Your task to perform on an android device: turn on the 24-hour format for clock Image 0: 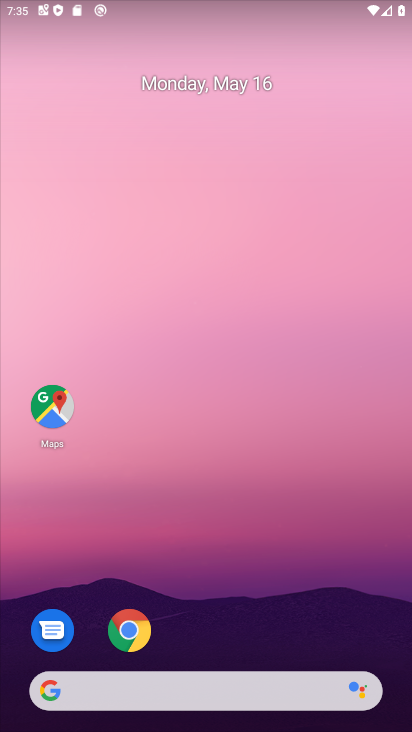
Step 0: drag from (275, 587) to (293, 154)
Your task to perform on an android device: turn on the 24-hour format for clock Image 1: 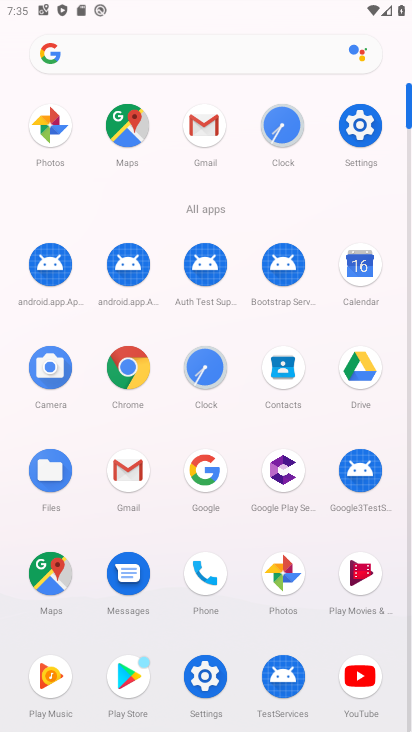
Step 1: click (286, 124)
Your task to perform on an android device: turn on the 24-hour format for clock Image 2: 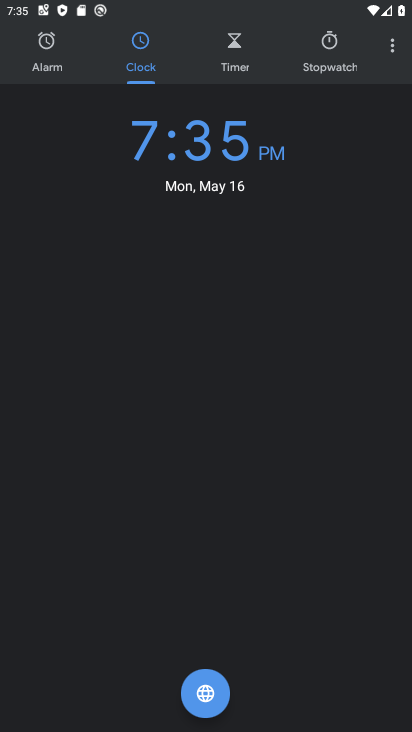
Step 2: click (390, 44)
Your task to perform on an android device: turn on the 24-hour format for clock Image 3: 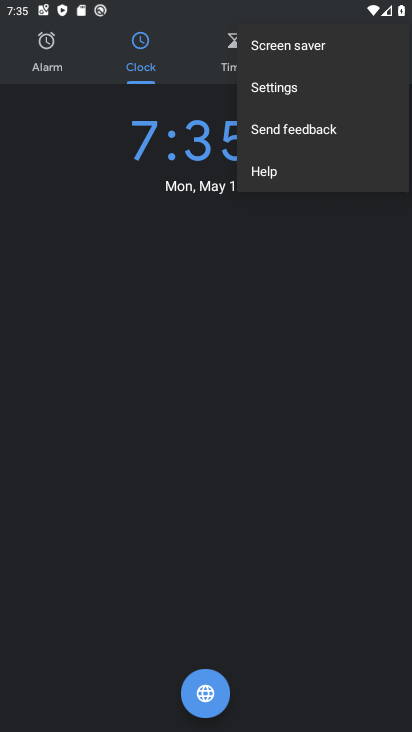
Step 3: click (346, 100)
Your task to perform on an android device: turn on the 24-hour format for clock Image 4: 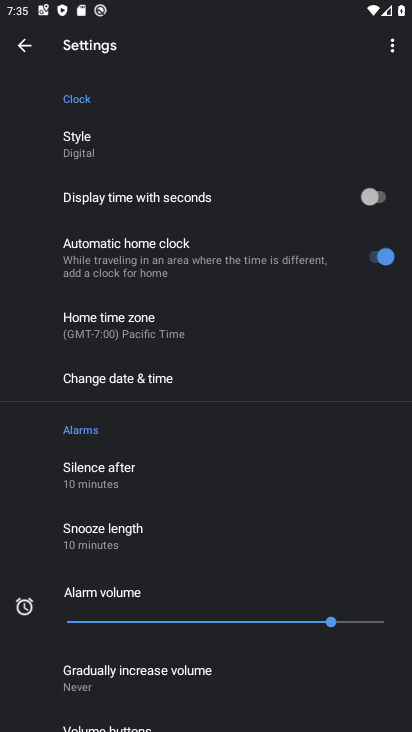
Step 4: drag from (225, 577) to (292, 176)
Your task to perform on an android device: turn on the 24-hour format for clock Image 5: 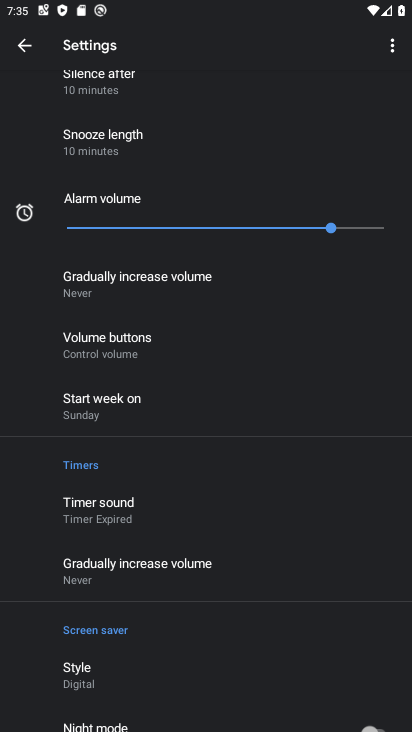
Step 5: drag from (235, 680) to (340, 287)
Your task to perform on an android device: turn on the 24-hour format for clock Image 6: 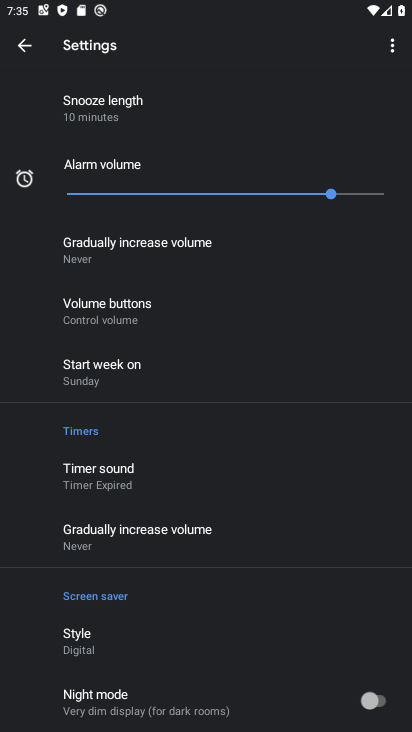
Step 6: drag from (255, 246) to (198, 679)
Your task to perform on an android device: turn on the 24-hour format for clock Image 7: 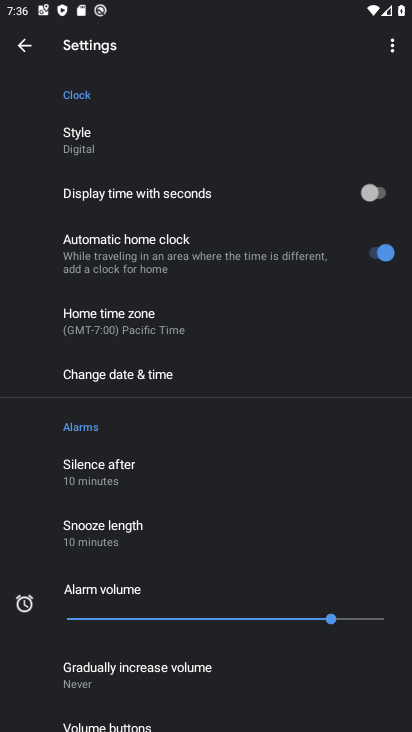
Step 7: drag from (217, 145) to (180, 426)
Your task to perform on an android device: turn on the 24-hour format for clock Image 8: 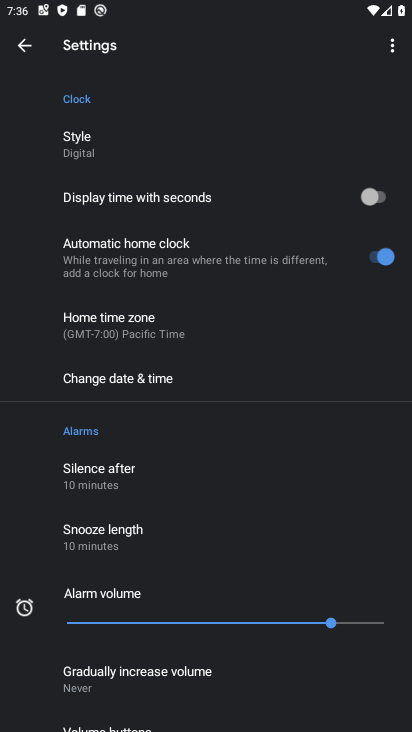
Step 8: click (388, 46)
Your task to perform on an android device: turn on the 24-hour format for clock Image 9: 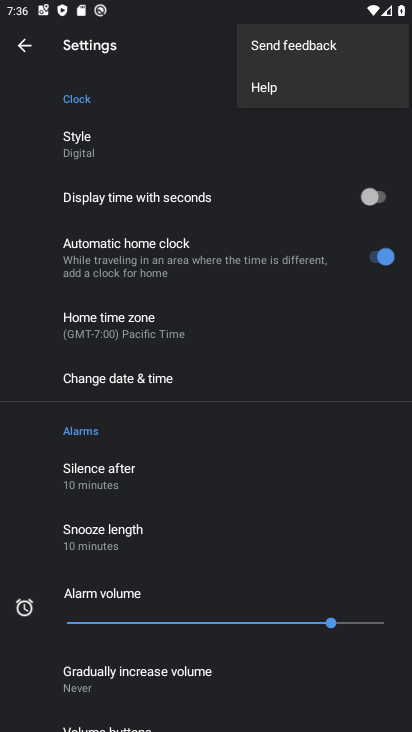
Step 9: press home button
Your task to perform on an android device: turn on the 24-hour format for clock Image 10: 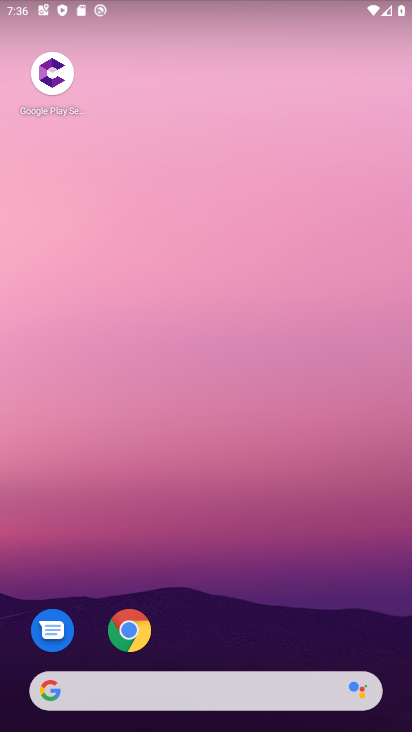
Step 10: drag from (257, 486) to (297, 219)
Your task to perform on an android device: turn on the 24-hour format for clock Image 11: 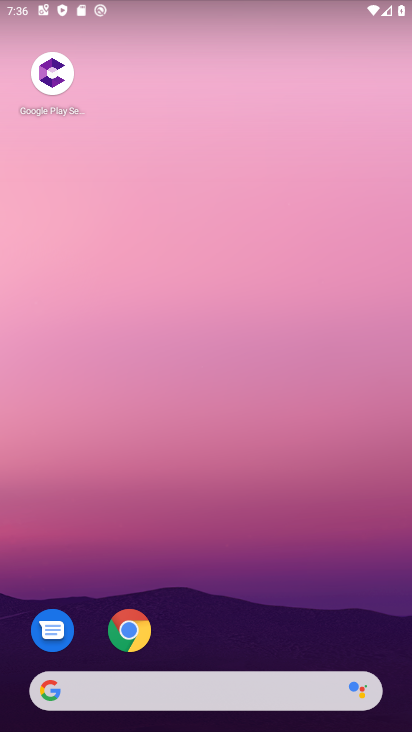
Step 11: drag from (252, 623) to (297, 25)
Your task to perform on an android device: turn on the 24-hour format for clock Image 12: 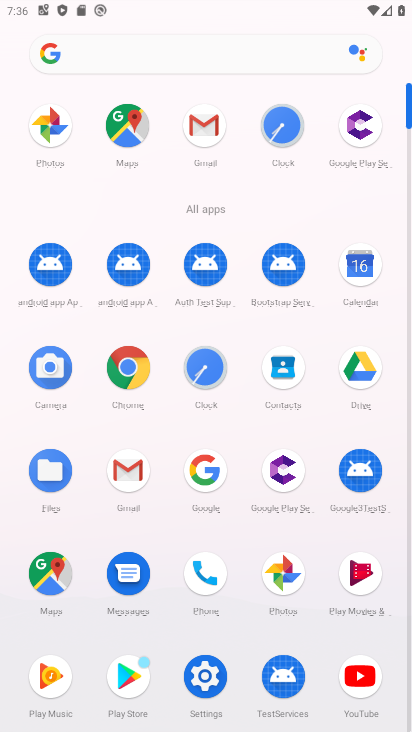
Step 12: click (213, 673)
Your task to perform on an android device: turn on the 24-hour format for clock Image 13: 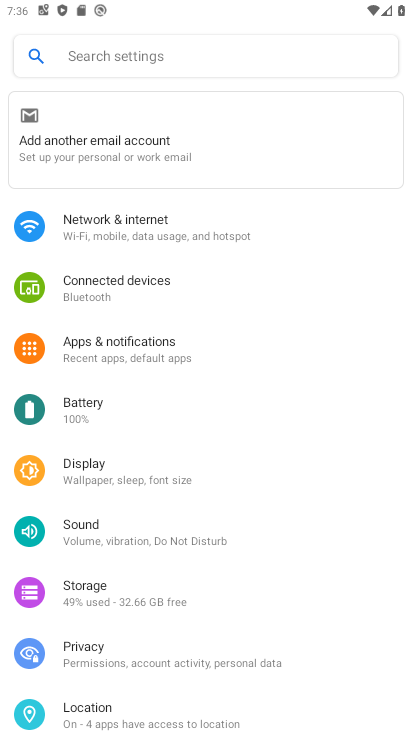
Step 13: drag from (291, 620) to (281, 287)
Your task to perform on an android device: turn on the 24-hour format for clock Image 14: 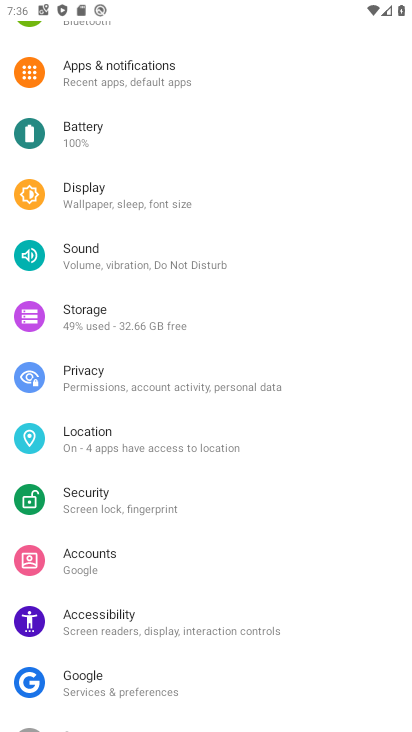
Step 14: drag from (249, 614) to (341, 179)
Your task to perform on an android device: turn on the 24-hour format for clock Image 15: 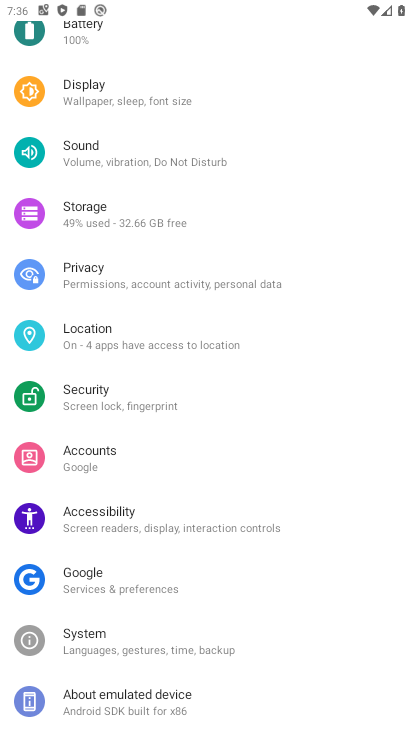
Step 15: drag from (204, 0) to (224, 601)
Your task to perform on an android device: turn on the 24-hour format for clock Image 16: 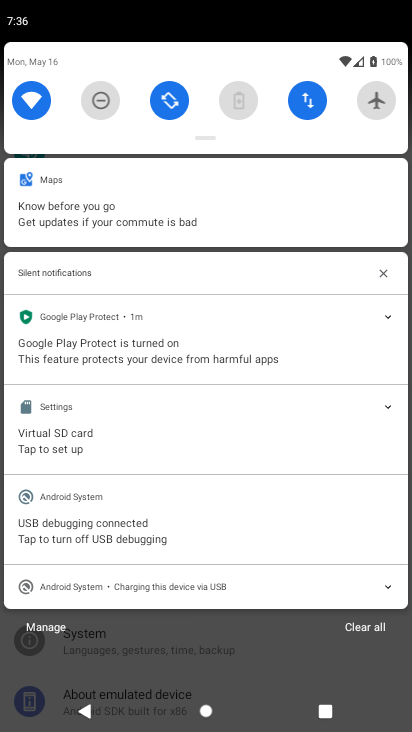
Step 16: click (26, 20)
Your task to perform on an android device: turn on the 24-hour format for clock Image 17: 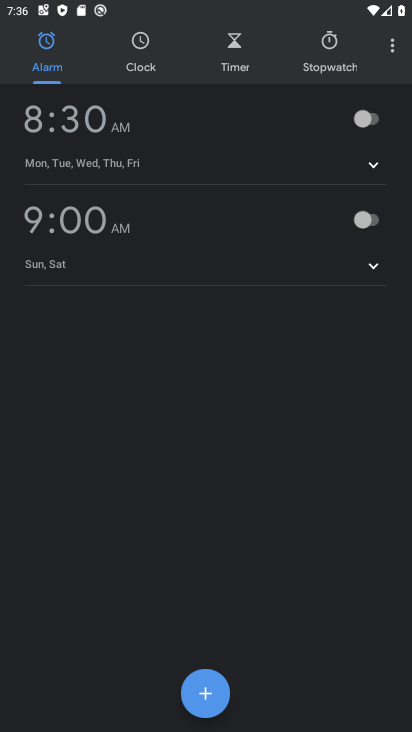
Step 17: click (130, 55)
Your task to perform on an android device: turn on the 24-hour format for clock Image 18: 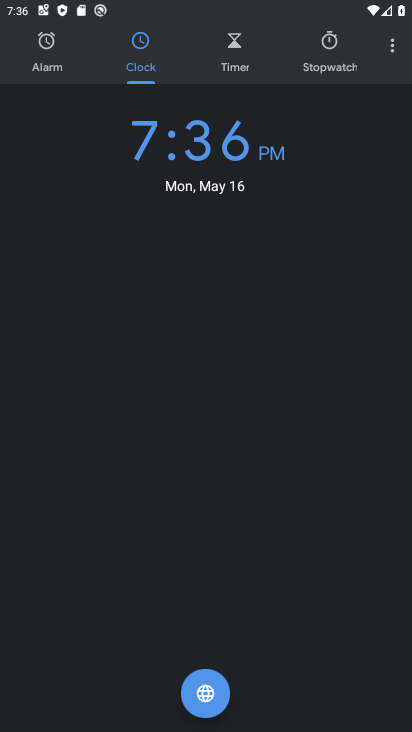
Step 18: click (219, 150)
Your task to perform on an android device: turn on the 24-hour format for clock Image 19: 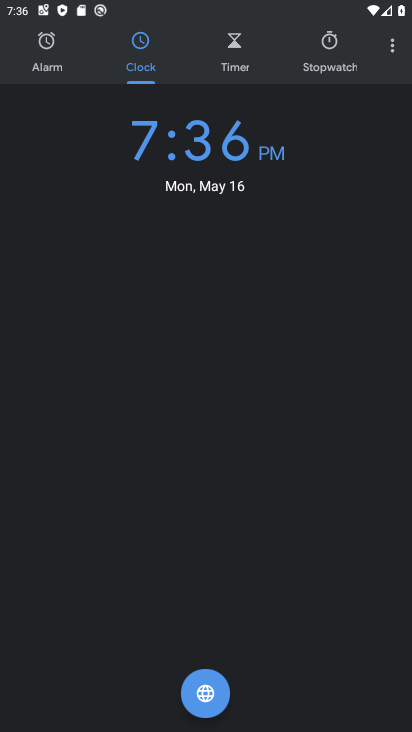
Step 19: click (216, 136)
Your task to perform on an android device: turn on the 24-hour format for clock Image 20: 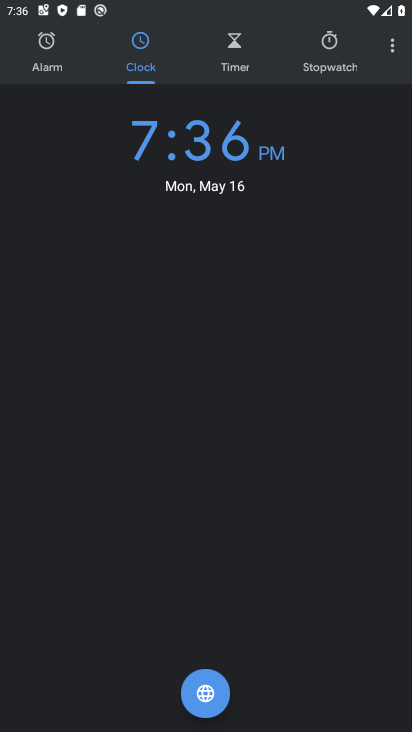
Step 20: click (212, 687)
Your task to perform on an android device: turn on the 24-hour format for clock Image 21: 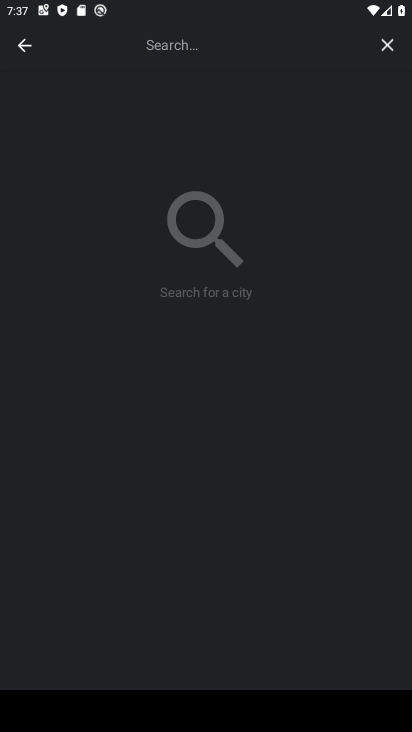
Step 21: type "24 hour format clock"
Your task to perform on an android device: turn on the 24-hour format for clock Image 22: 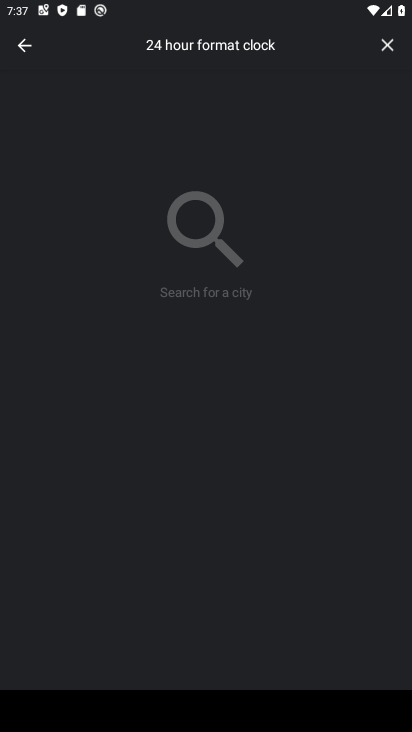
Step 22: click (277, 24)
Your task to perform on an android device: turn on the 24-hour format for clock Image 23: 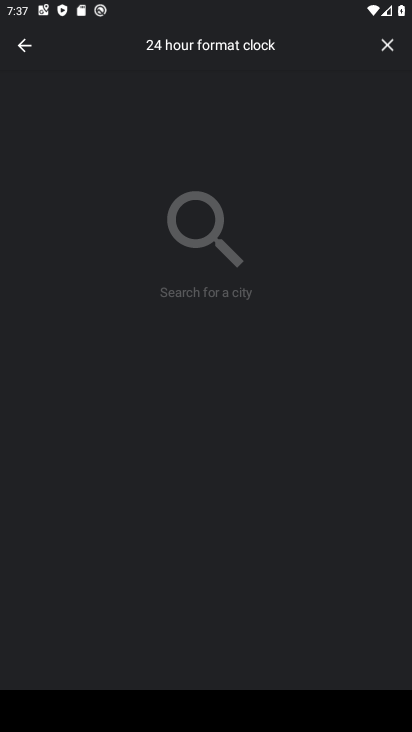
Step 23: click (282, 38)
Your task to perform on an android device: turn on the 24-hour format for clock Image 24: 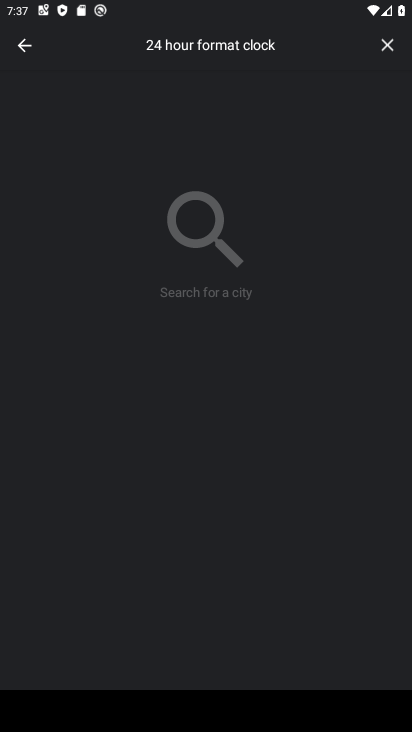
Step 24: click (380, 43)
Your task to perform on an android device: turn on the 24-hour format for clock Image 25: 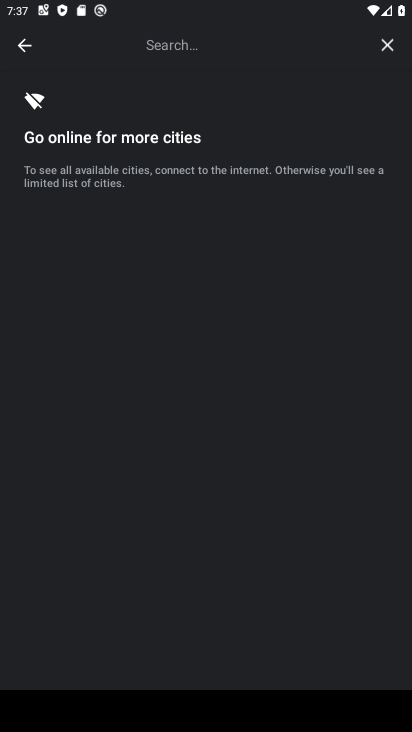
Step 25: click (111, 126)
Your task to perform on an android device: turn on the 24-hour format for clock Image 26: 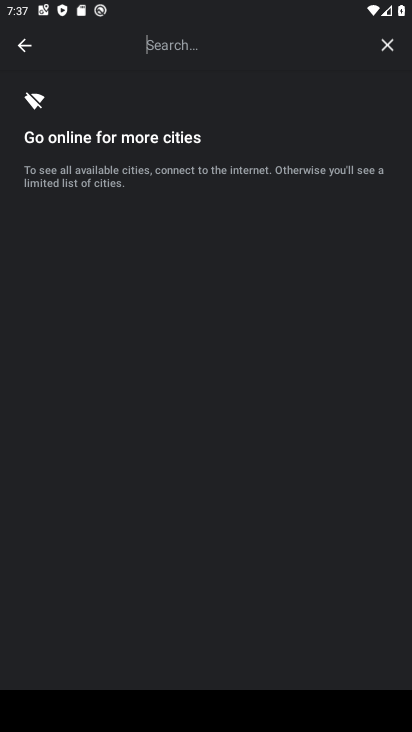
Step 26: task complete